Your task to perform on an android device: turn pop-ups off in chrome Image 0: 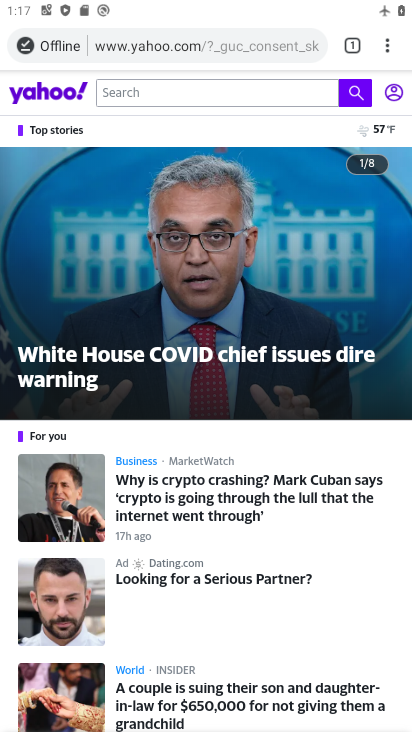
Step 0: drag from (386, 42) to (231, 509)
Your task to perform on an android device: turn pop-ups off in chrome Image 1: 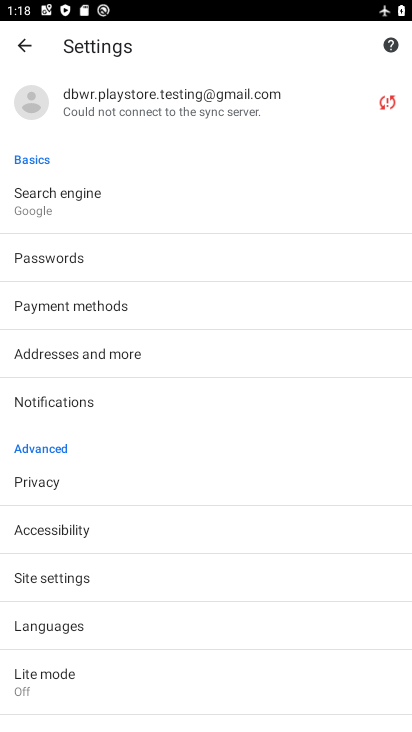
Step 1: click (90, 582)
Your task to perform on an android device: turn pop-ups off in chrome Image 2: 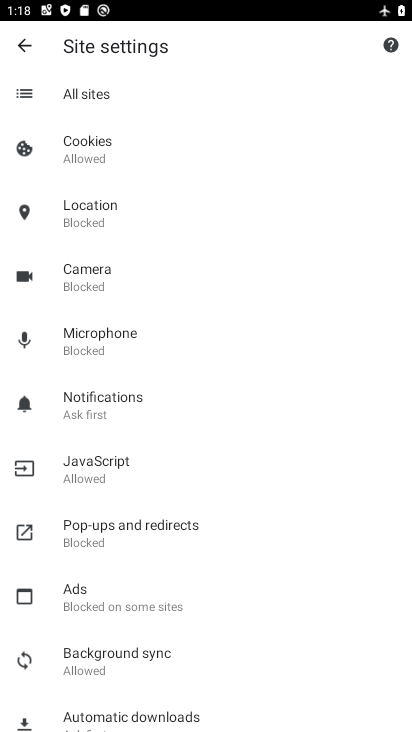
Step 2: click (116, 543)
Your task to perform on an android device: turn pop-ups off in chrome Image 3: 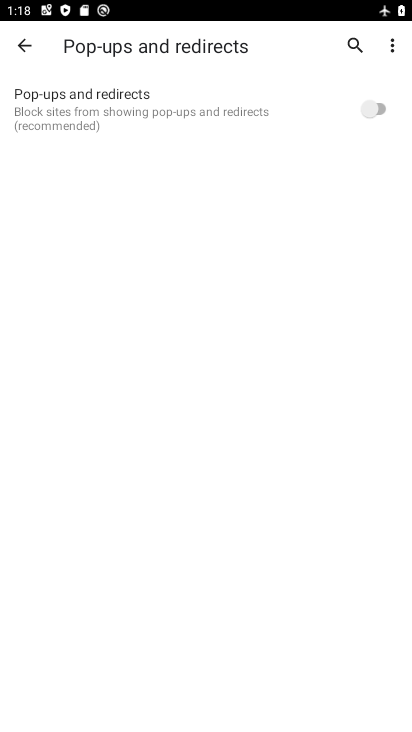
Step 3: task complete